Your task to perform on an android device: Clear the shopping cart on costco. Image 0: 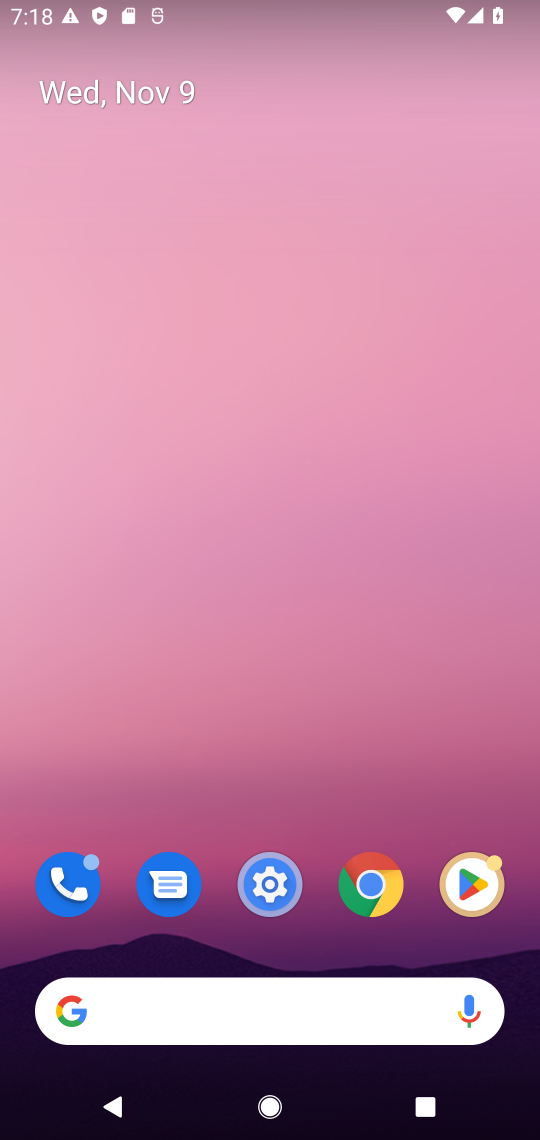
Step 0: click (376, 882)
Your task to perform on an android device: Clear the shopping cart on costco. Image 1: 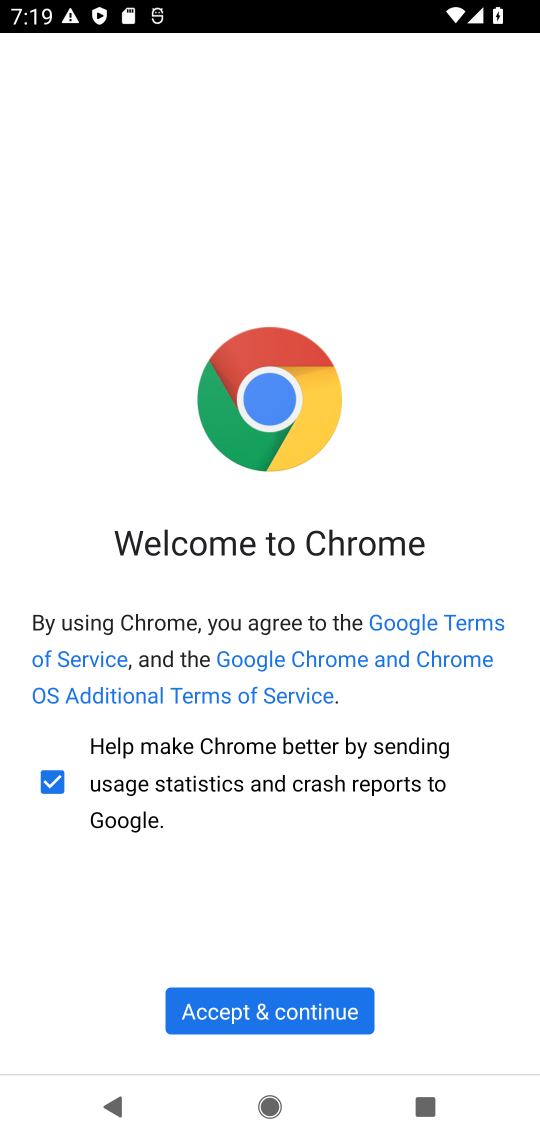
Step 1: click (289, 1005)
Your task to perform on an android device: Clear the shopping cart on costco. Image 2: 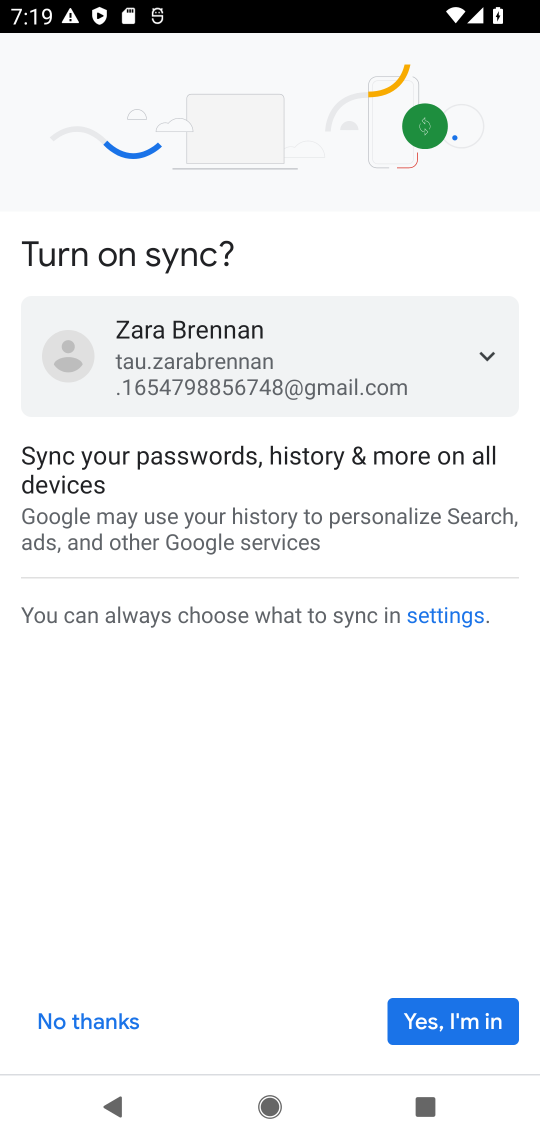
Step 2: click (424, 1020)
Your task to perform on an android device: Clear the shopping cart on costco. Image 3: 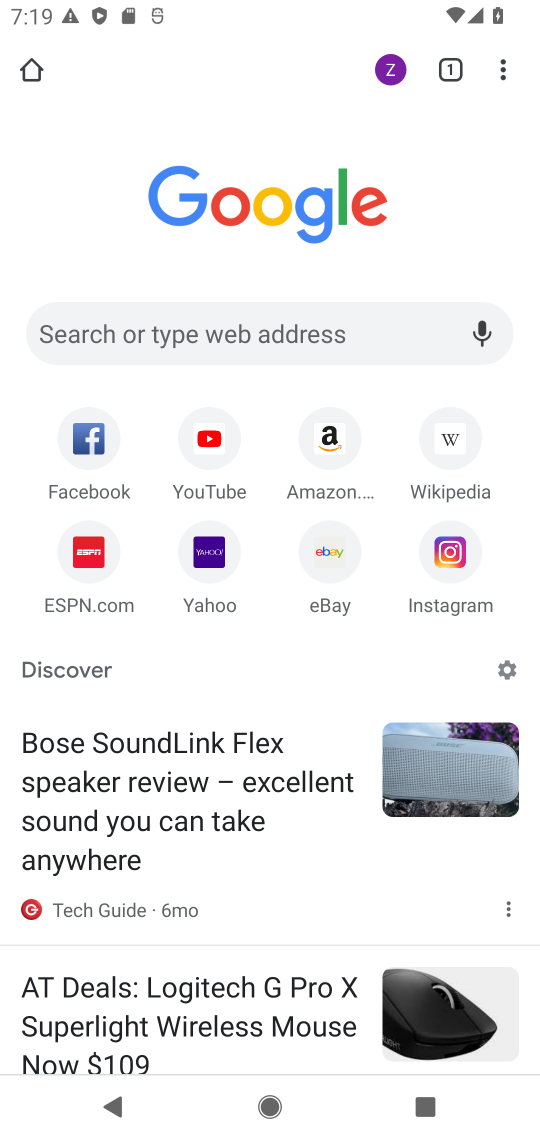
Step 3: click (315, 323)
Your task to perform on an android device: Clear the shopping cart on costco. Image 4: 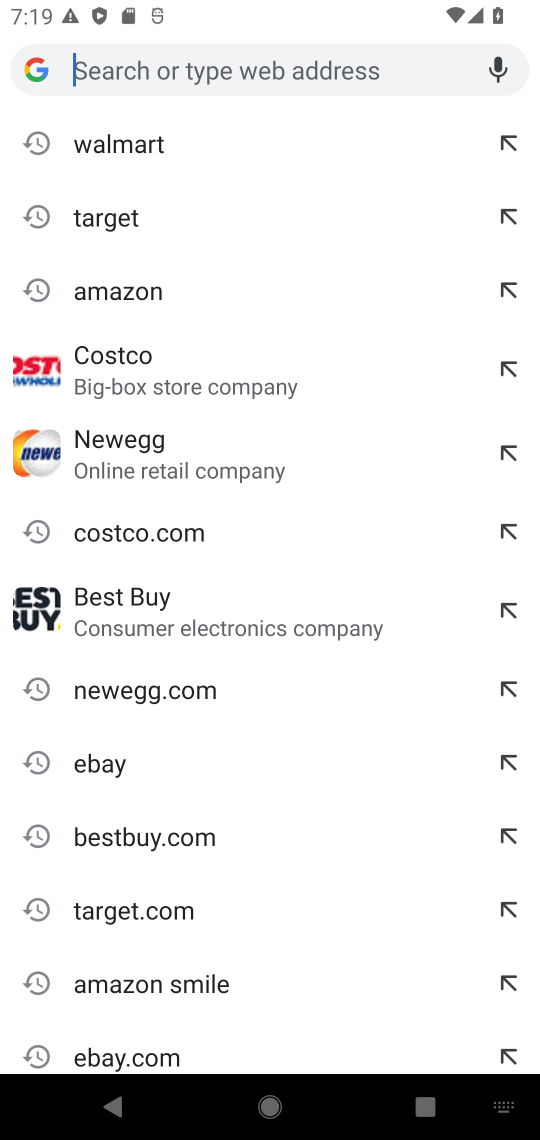
Step 4: click (126, 350)
Your task to perform on an android device: Clear the shopping cart on costco. Image 5: 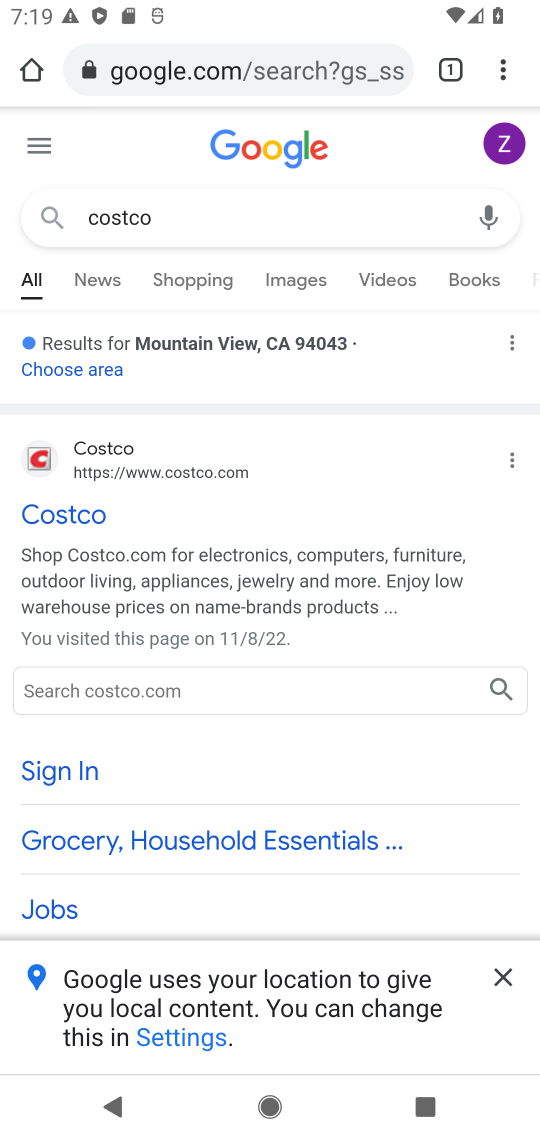
Step 5: click (86, 513)
Your task to perform on an android device: Clear the shopping cart on costco. Image 6: 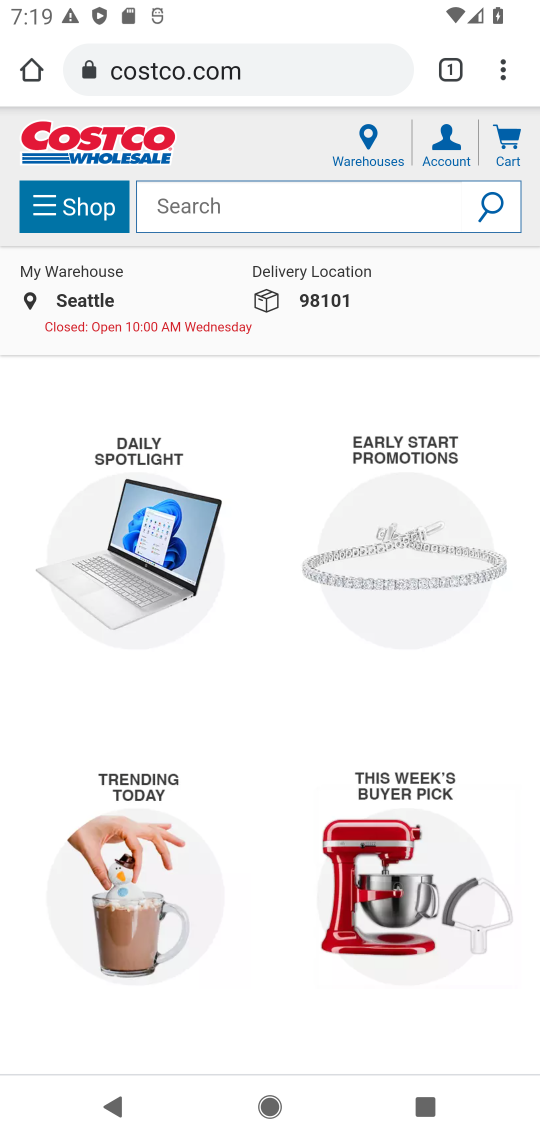
Step 6: click (514, 133)
Your task to perform on an android device: Clear the shopping cart on costco. Image 7: 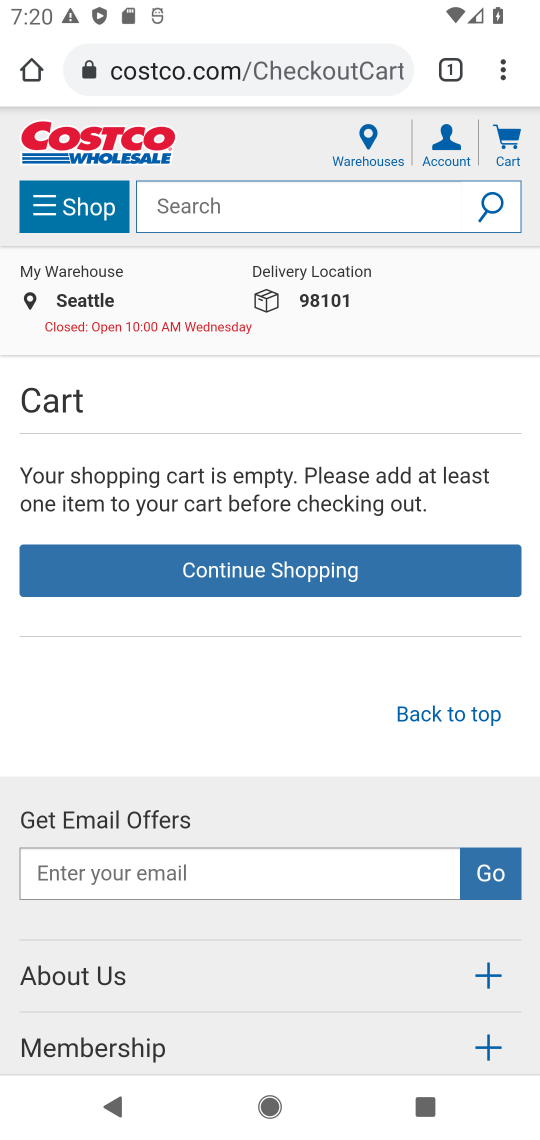
Step 7: task complete